Your task to perform on an android device: Open calendar and show me the fourth week of next month Image 0: 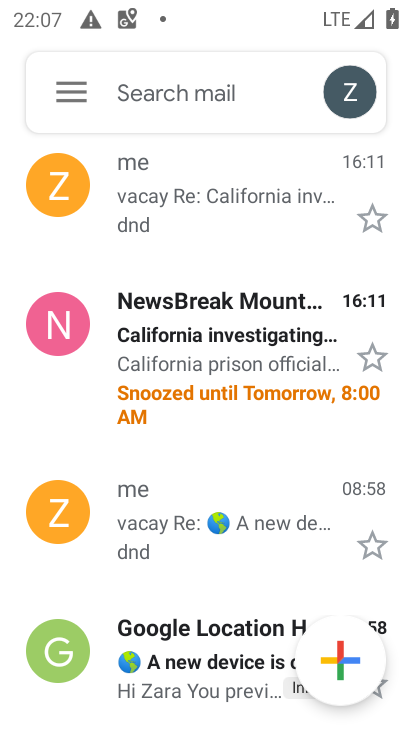
Step 0: press home button
Your task to perform on an android device: Open calendar and show me the fourth week of next month Image 1: 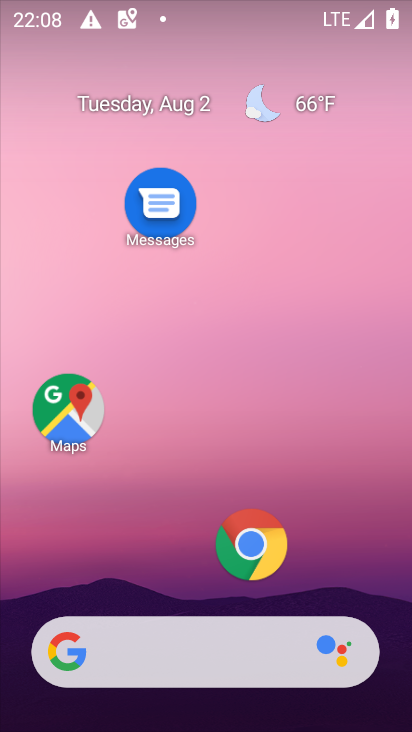
Step 1: drag from (169, 576) to (208, 159)
Your task to perform on an android device: Open calendar and show me the fourth week of next month Image 2: 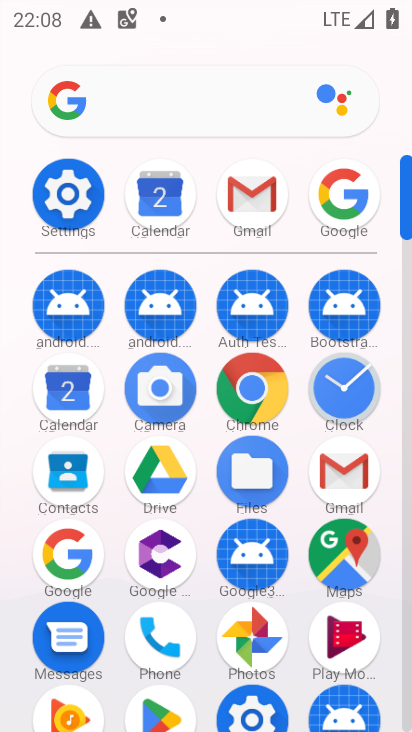
Step 2: click (146, 231)
Your task to perform on an android device: Open calendar and show me the fourth week of next month Image 3: 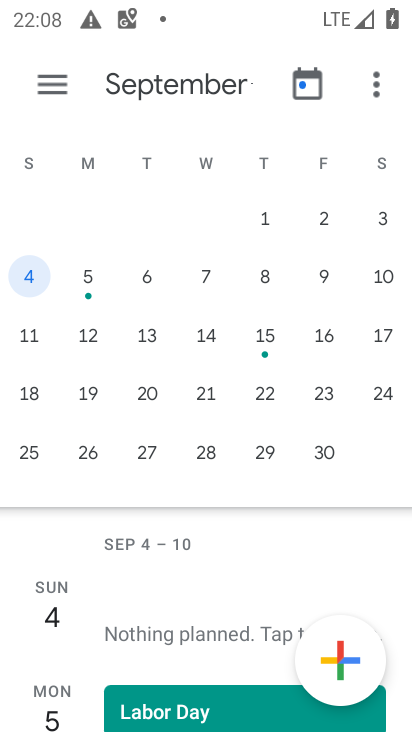
Step 3: click (32, 397)
Your task to perform on an android device: Open calendar and show me the fourth week of next month Image 4: 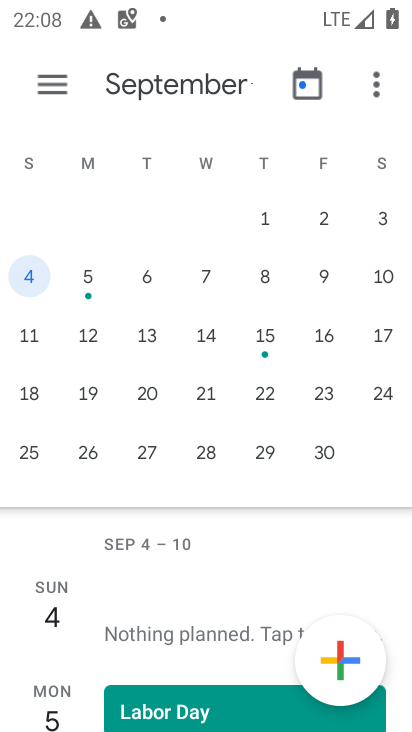
Step 4: click (32, 397)
Your task to perform on an android device: Open calendar and show me the fourth week of next month Image 5: 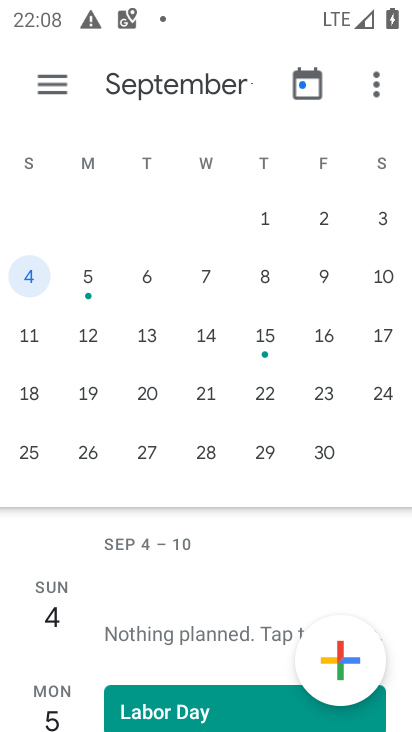
Step 5: drag from (159, 572) to (223, 452)
Your task to perform on an android device: Open calendar and show me the fourth week of next month Image 6: 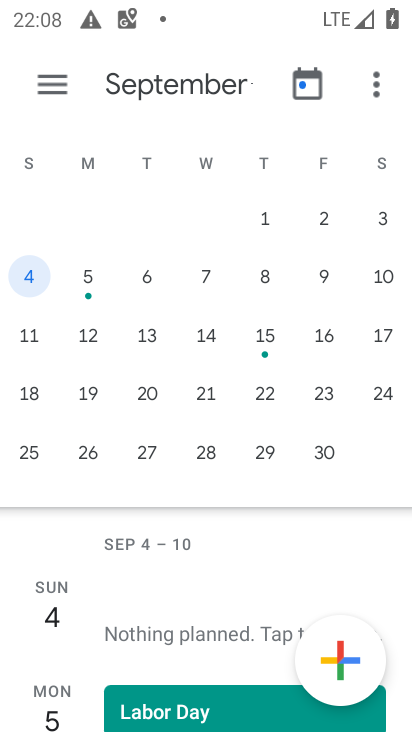
Step 6: click (32, 260)
Your task to perform on an android device: Open calendar and show me the fourth week of next month Image 7: 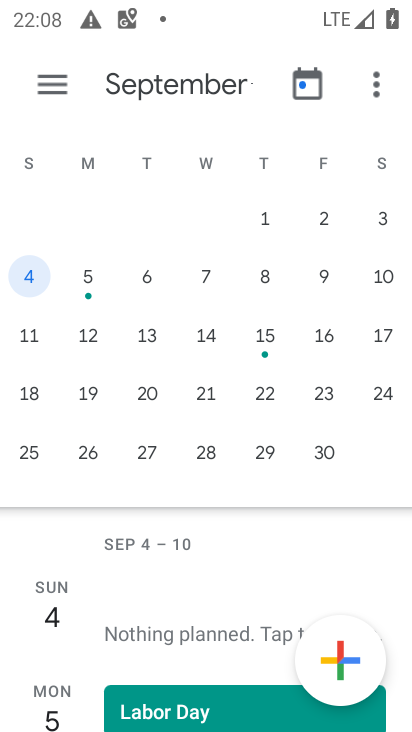
Step 7: click (42, 370)
Your task to perform on an android device: Open calendar and show me the fourth week of next month Image 8: 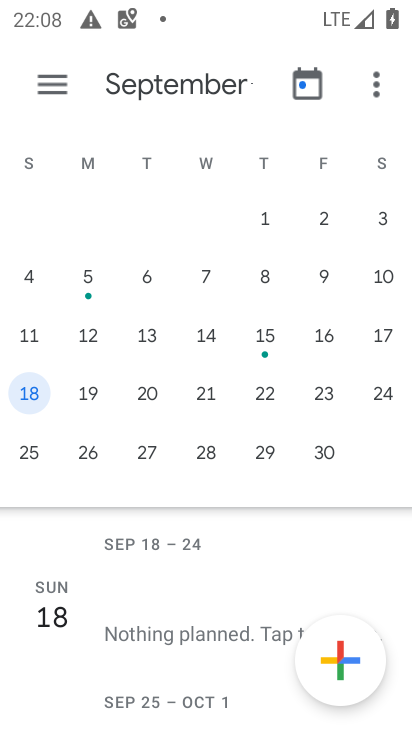
Step 8: click (38, 386)
Your task to perform on an android device: Open calendar and show me the fourth week of next month Image 9: 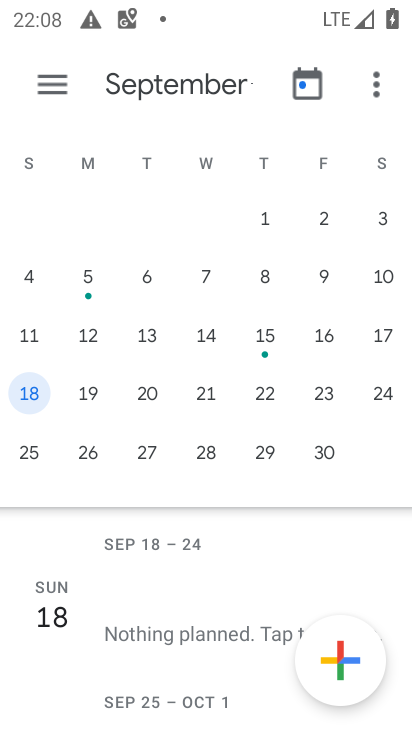
Step 9: click (93, 400)
Your task to perform on an android device: Open calendar and show me the fourth week of next month Image 10: 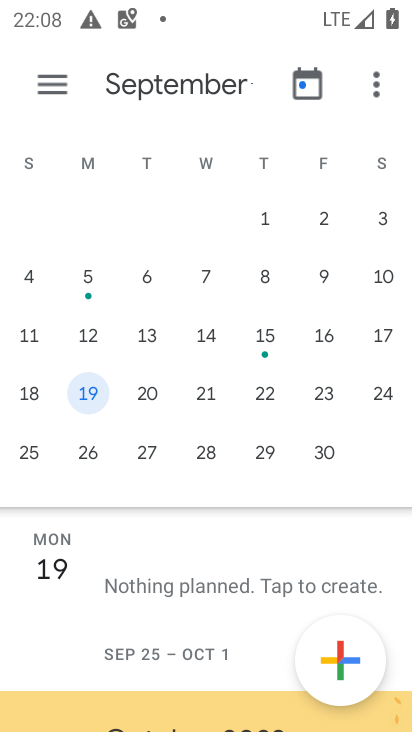
Step 10: click (43, 396)
Your task to perform on an android device: Open calendar and show me the fourth week of next month Image 11: 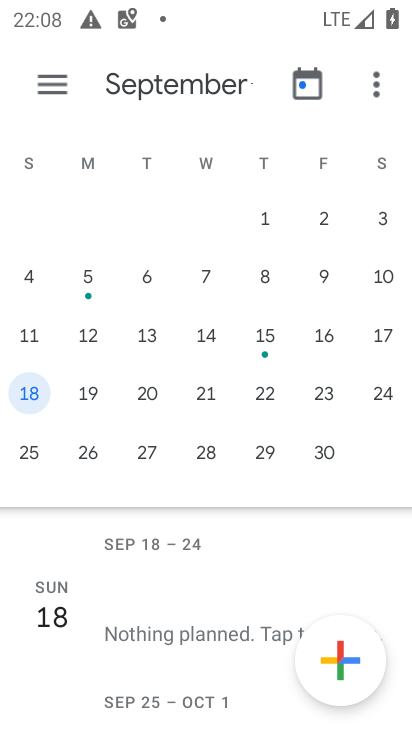
Step 11: drag from (174, 589) to (180, 397)
Your task to perform on an android device: Open calendar and show me the fourth week of next month Image 12: 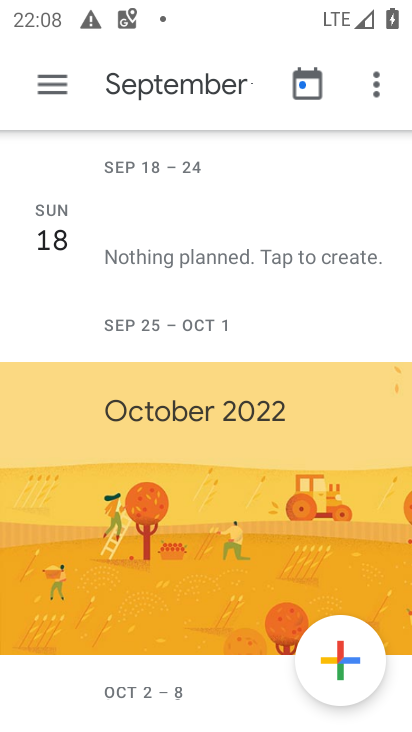
Step 12: click (185, 165)
Your task to perform on an android device: Open calendar and show me the fourth week of next month Image 13: 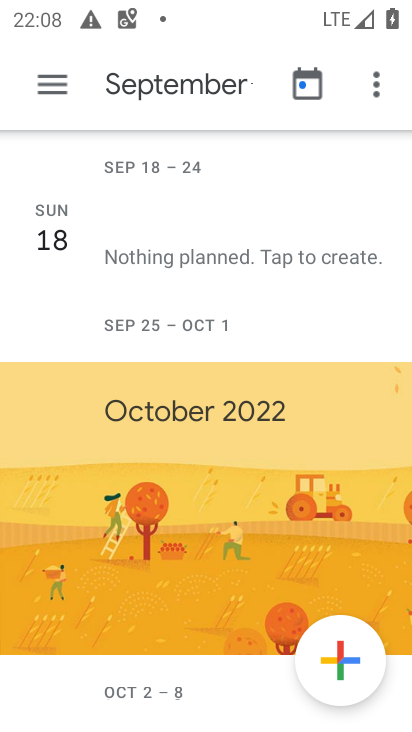
Step 13: task complete